Your task to perform on an android device: Open the phone app and click the voicemail tab. Image 0: 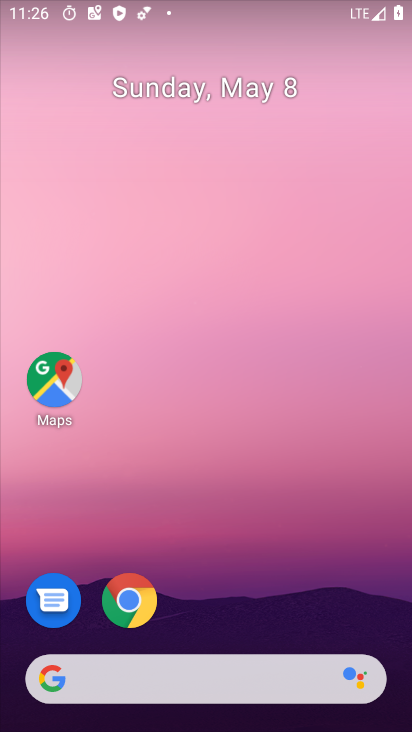
Step 0: drag from (298, 616) to (296, 174)
Your task to perform on an android device: Open the phone app and click the voicemail tab. Image 1: 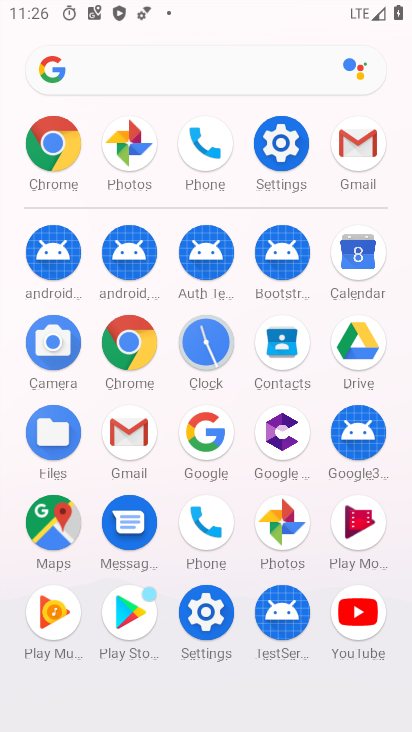
Step 1: click (225, 525)
Your task to perform on an android device: Open the phone app and click the voicemail tab. Image 2: 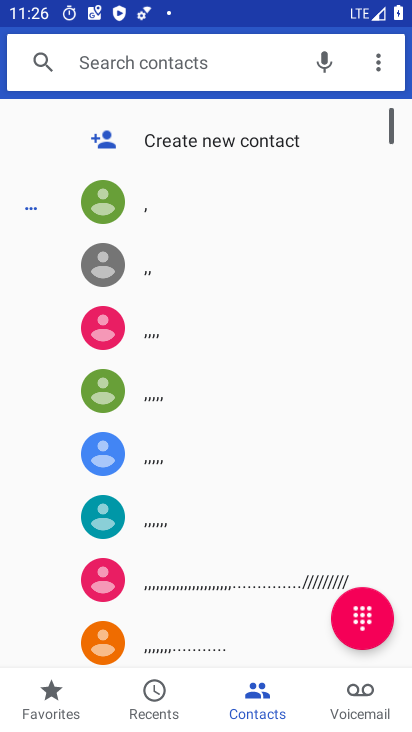
Step 2: click (375, 698)
Your task to perform on an android device: Open the phone app and click the voicemail tab. Image 3: 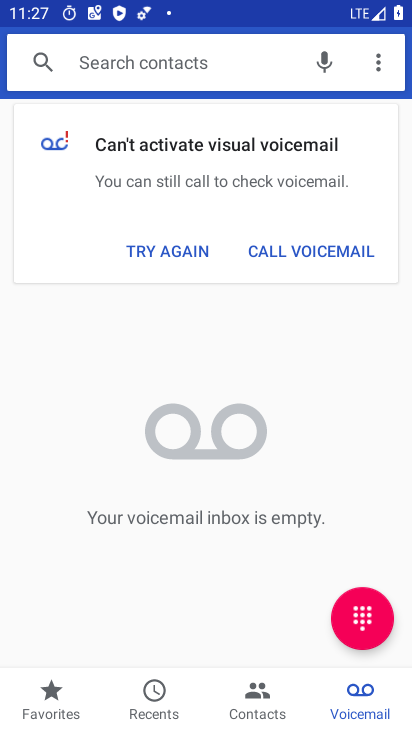
Step 3: task complete